Your task to perform on an android device: Go to Maps Image 0: 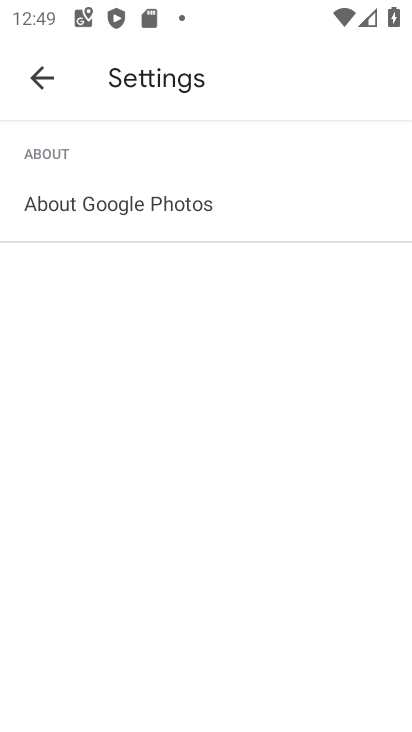
Step 0: press home button
Your task to perform on an android device: Go to Maps Image 1: 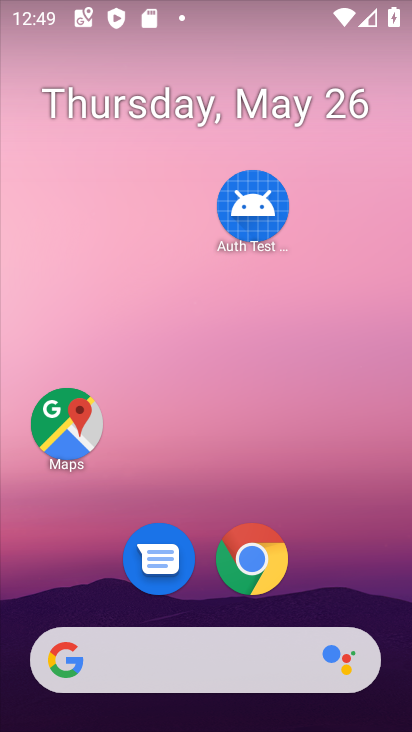
Step 1: click (72, 421)
Your task to perform on an android device: Go to Maps Image 2: 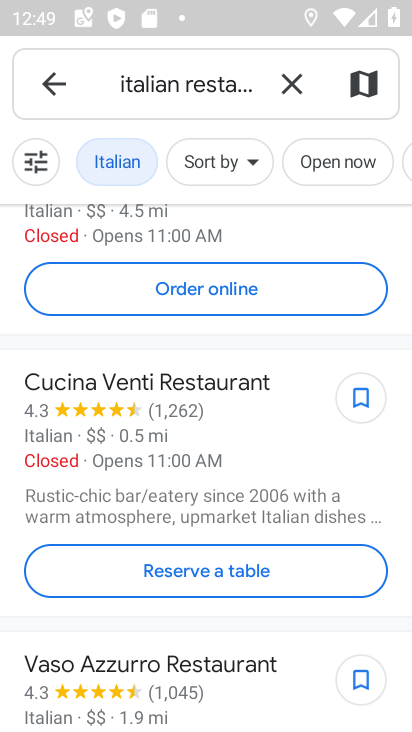
Step 2: task complete